Your task to perform on an android device: Search for Italian restaurants on Maps Image 0: 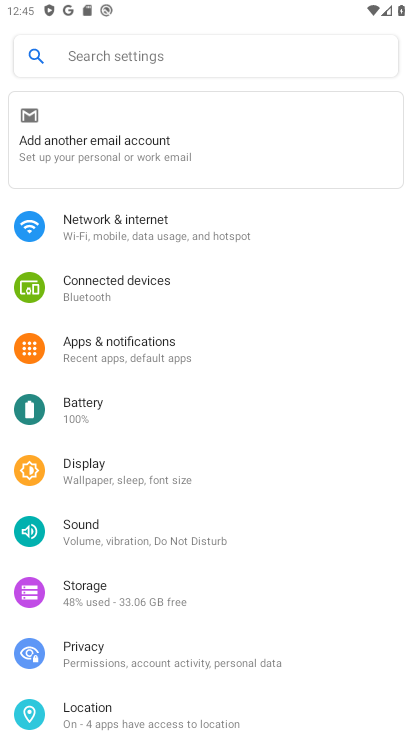
Step 0: press home button
Your task to perform on an android device: Search for Italian restaurants on Maps Image 1: 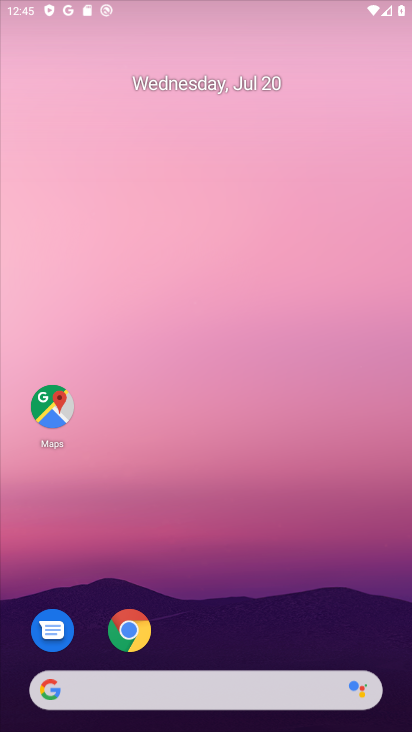
Step 1: press home button
Your task to perform on an android device: Search for Italian restaurants on Maps Image 2: 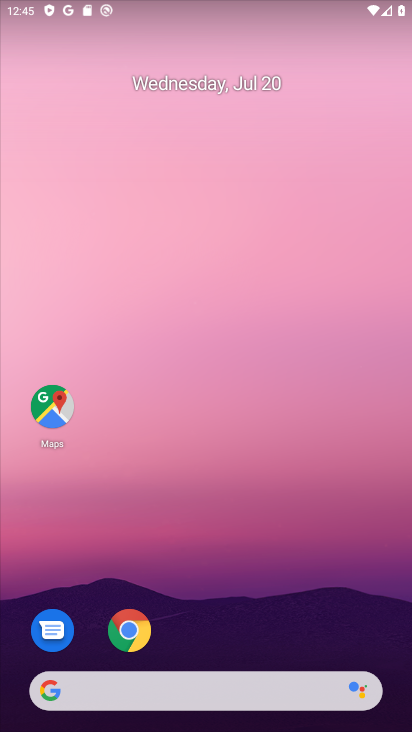
Step 2: click (56, 406)
Your task to perform on an android device: Search for Italian restaurants on Maps Image 3: 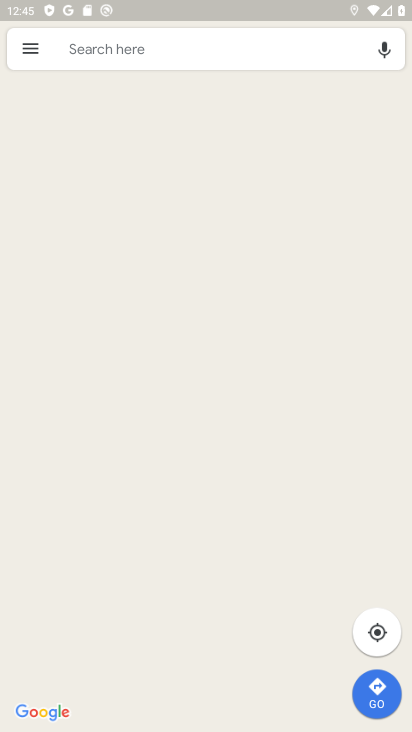
Step 3: click (223, 57)
Your task to perform on an android device: Search for Italian restaurants on Maps Image 4: 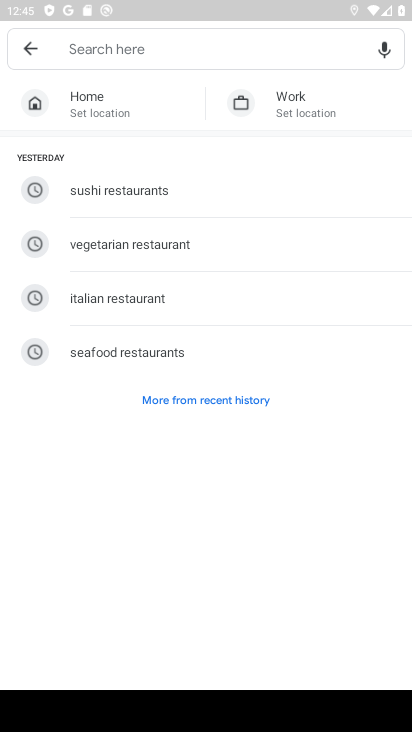
Step 4: click (248, 309)
Your task to perform on an android device: Search for Italian restaurants on Maps Image 5: 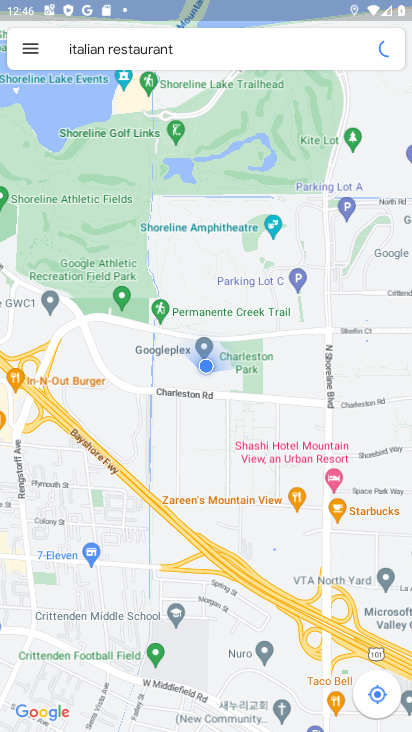
Step 5: task complete